Your task to perform on an android device: Go to wifi settings Image 0: 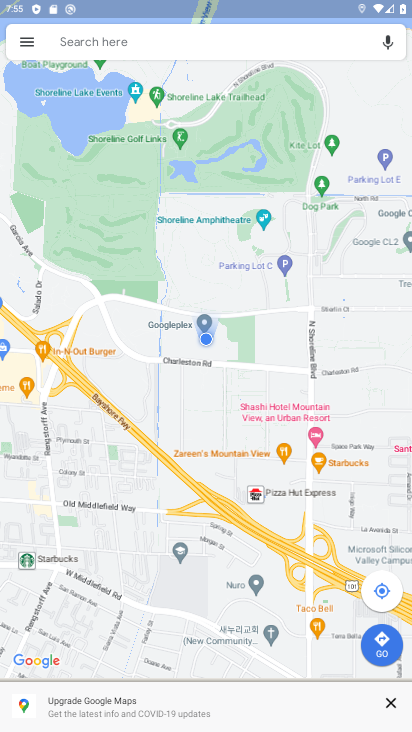
Step 0: press home button
Your task to perform on an android device: Go to wifi settings Image 1: 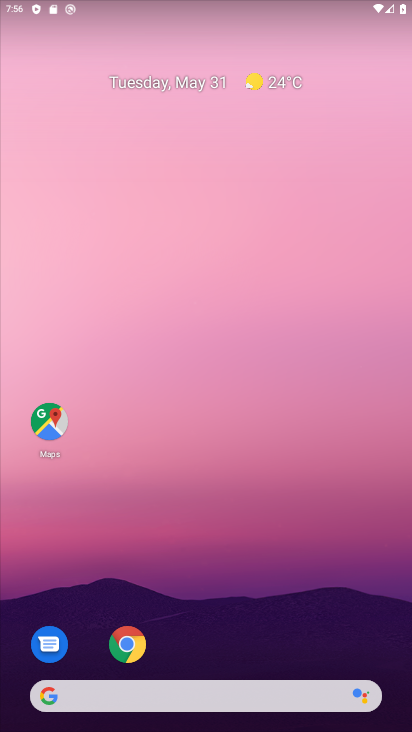
Step 1: drag from (218, 627) to (219, 310)
Your task to perform on an android device: Go to wifi settings Image 2: 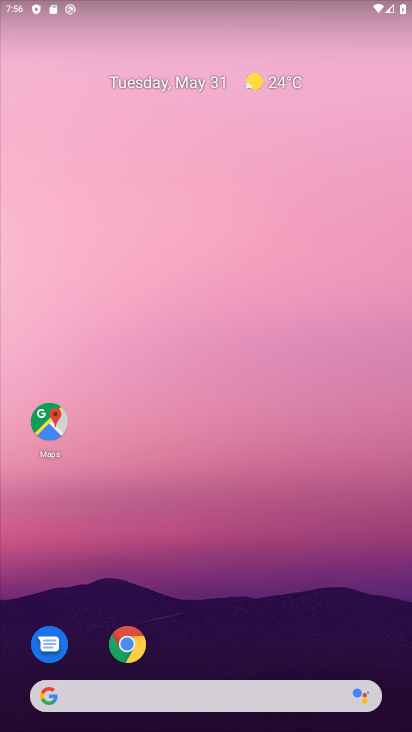
Step 2: drag from (244, 603) to (272, 291)
Your task to perform on an android device: Go to wifi settings Image 3: 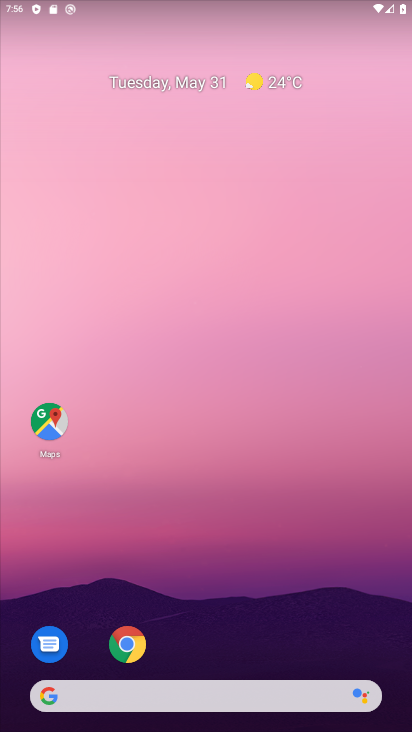
Step 3: drag from (200, 622) to (240, 201)
Your task to perform on an android device: Go to wifi settings Image 4: 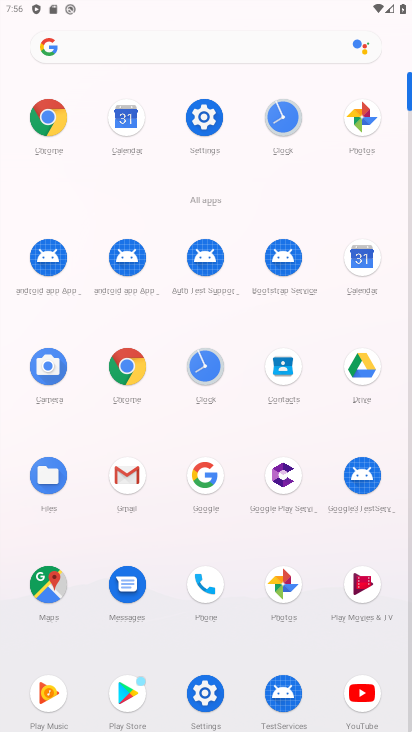
Step 4: click (213, 684)
Your task to perform on an android device: Go to wifi settings Image 5: 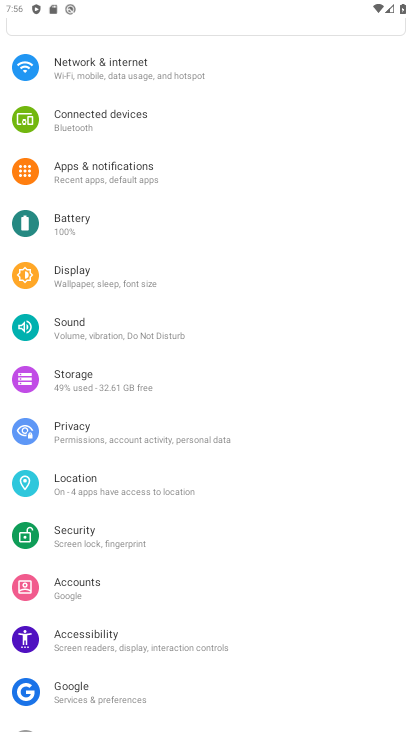
Step 5: click (137, 70)
Your task to perform on an android device: Go to wifi settings Image 6: 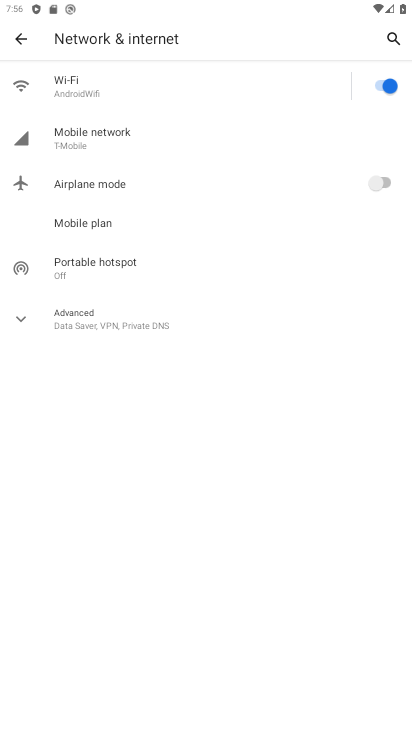
Step 6: click (114, 96)
Your task to perform on an android device: Go to wifi settings Image 7: 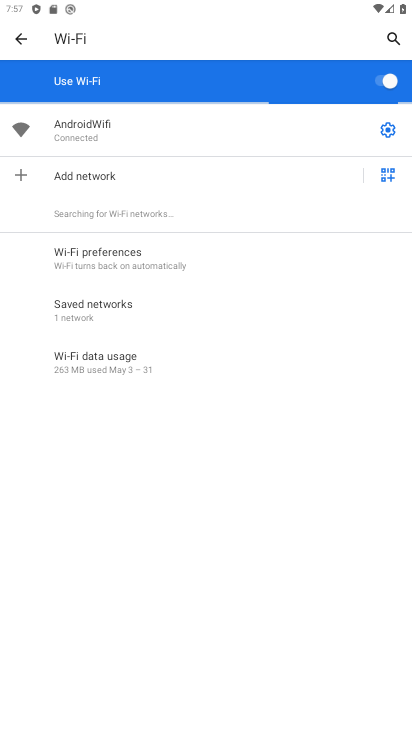
Step 7: task complete